Your task to perform on an android device: install app "Facebook" Image 0: 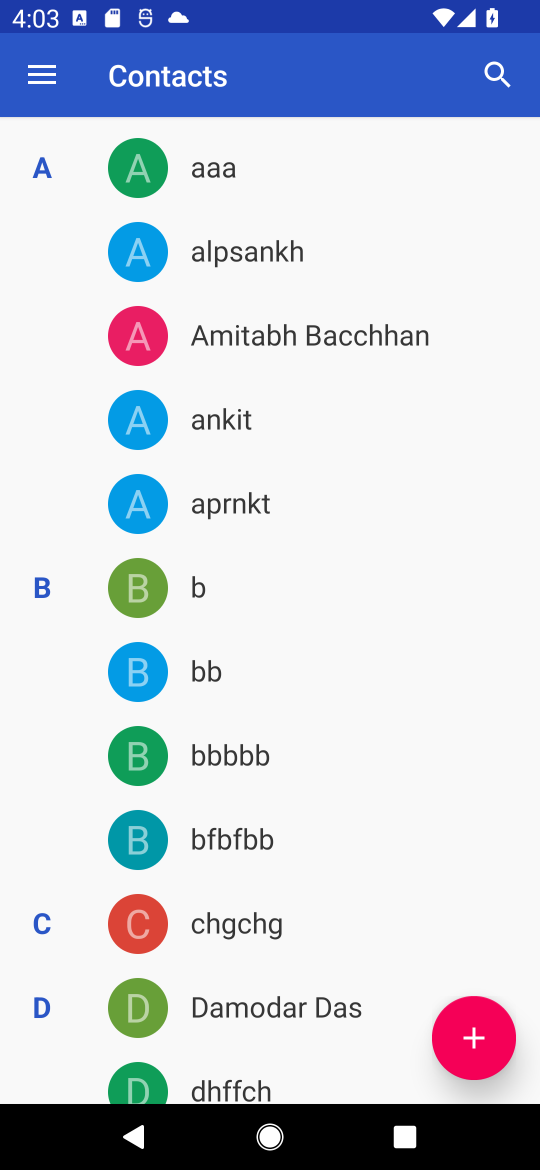
Step 0: press home button
Your task to perform on an android device: install app "Facebook" Image 1: 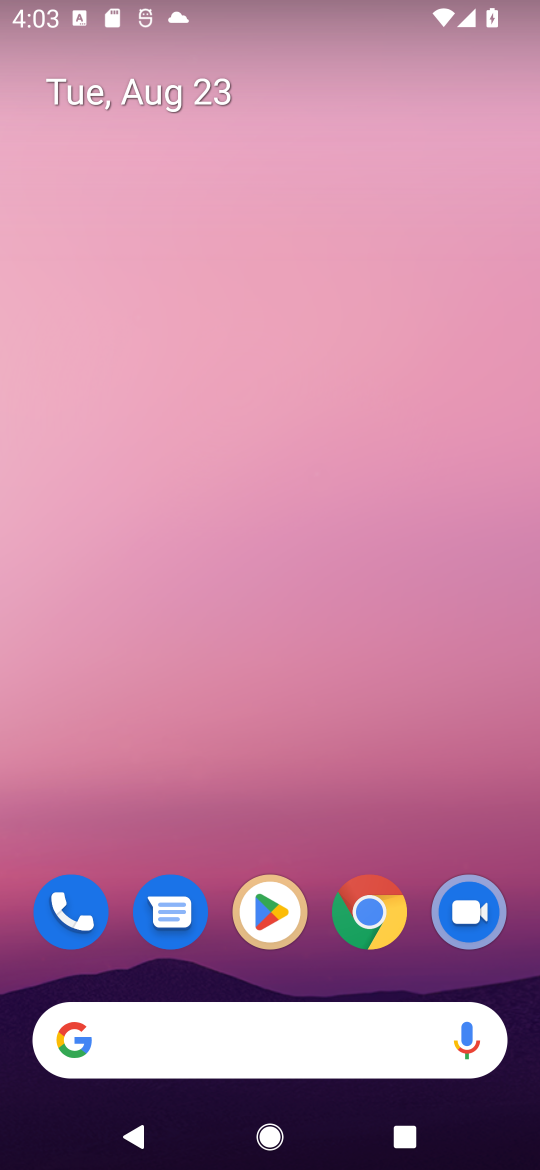
Step 1: drag from (225, 1065) to (365, 30)
Your task to perform on an android device: install app "Facebook" Image 2: 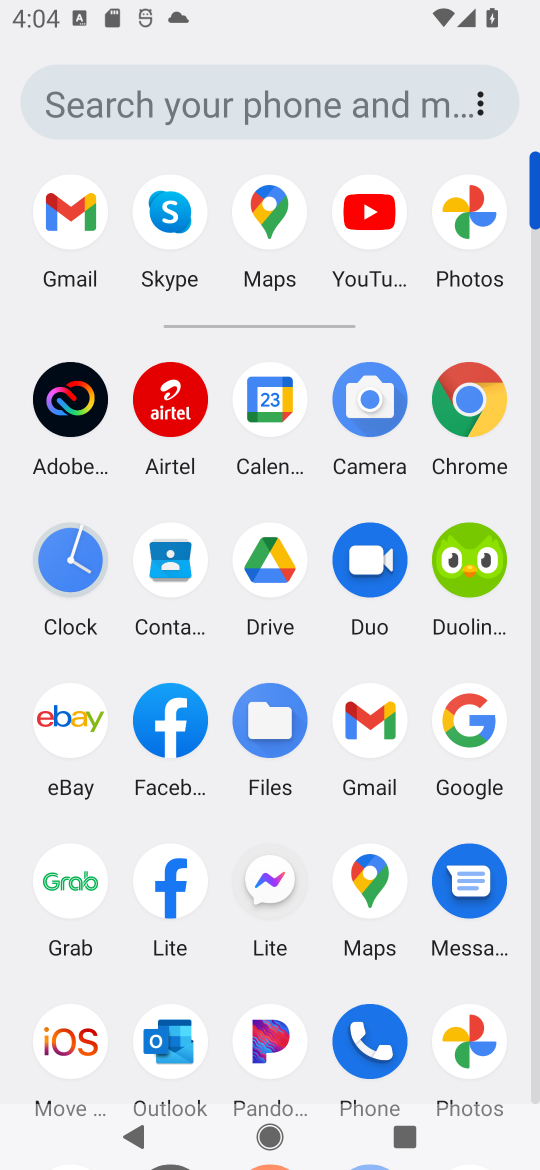
Step 2: drag from (222, 960) to (233, 738)
Your task to perform on an android device: install app "Facebook" Image 3: 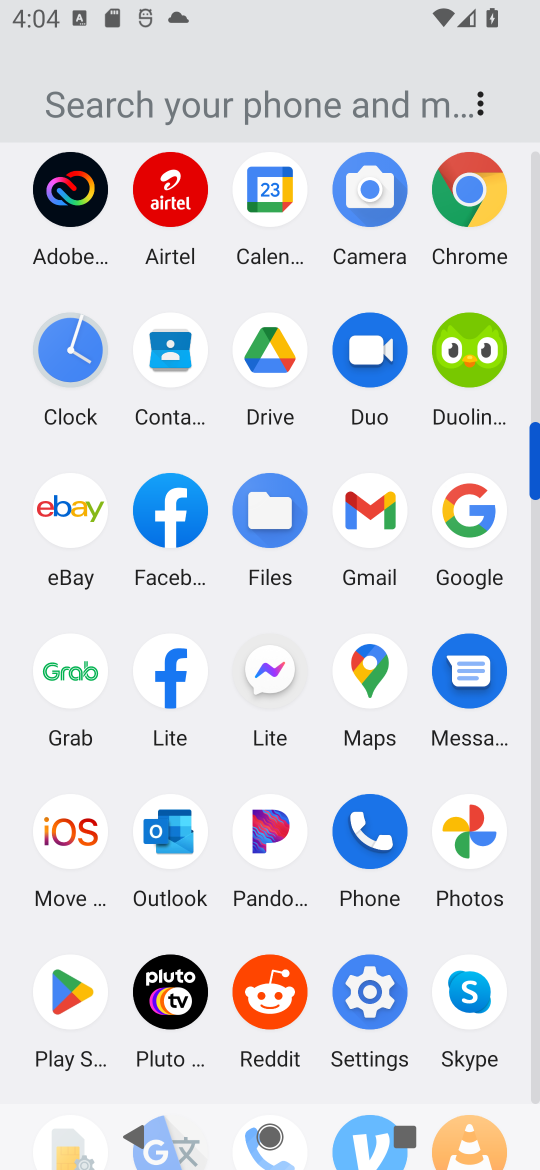
Step 3: click (76, 998)
Your task to perform on an android device: install app "Facebook" Image 4: 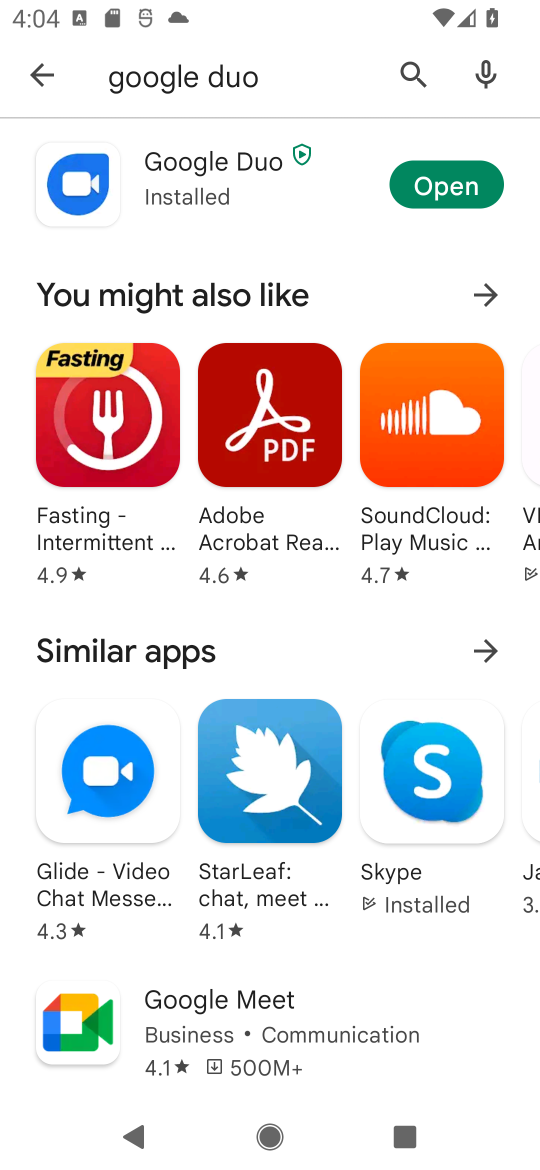
Step 4: press back button
Your task to perform on an android device: install app "Facebook" Image 5: 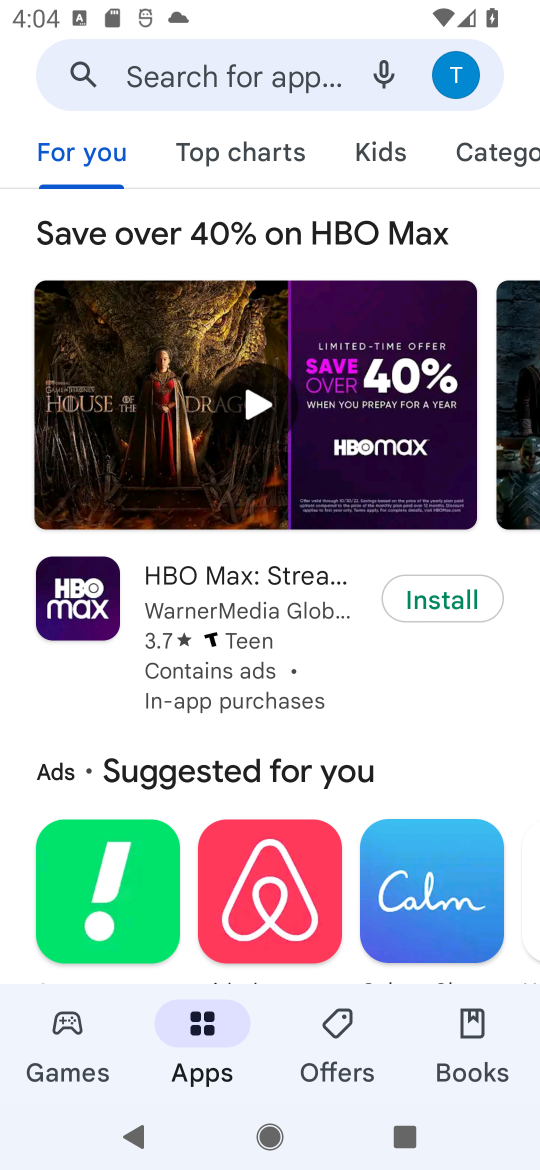
Step 5: click (275, 82)
Your task to perform on an android device: install app "Facebook" Image 6: 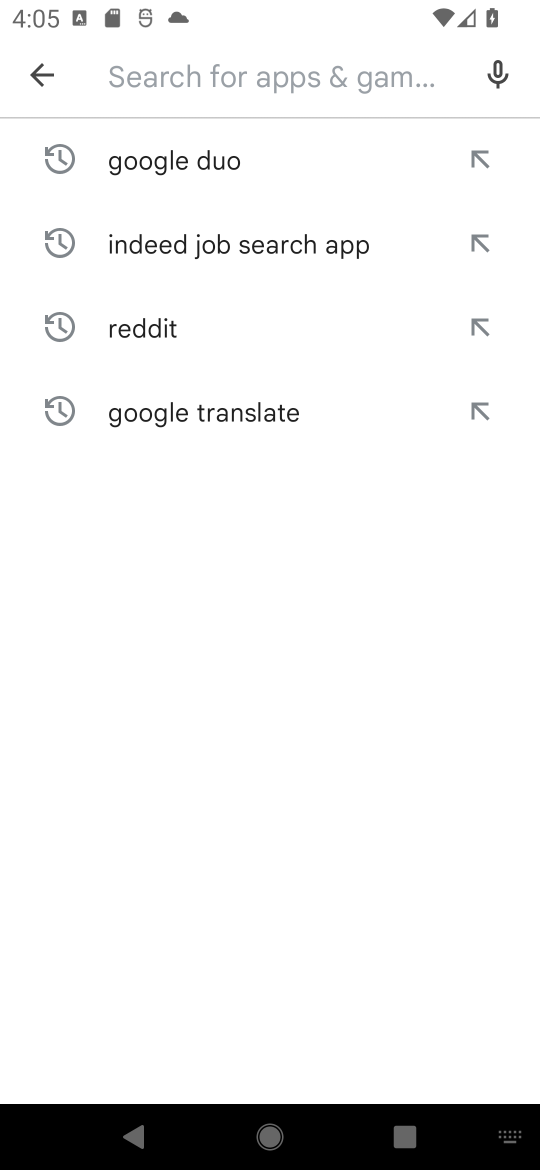
Step 6: type "Facebook"
Your task to perform on an android device: install app "Facebook" Image 7: 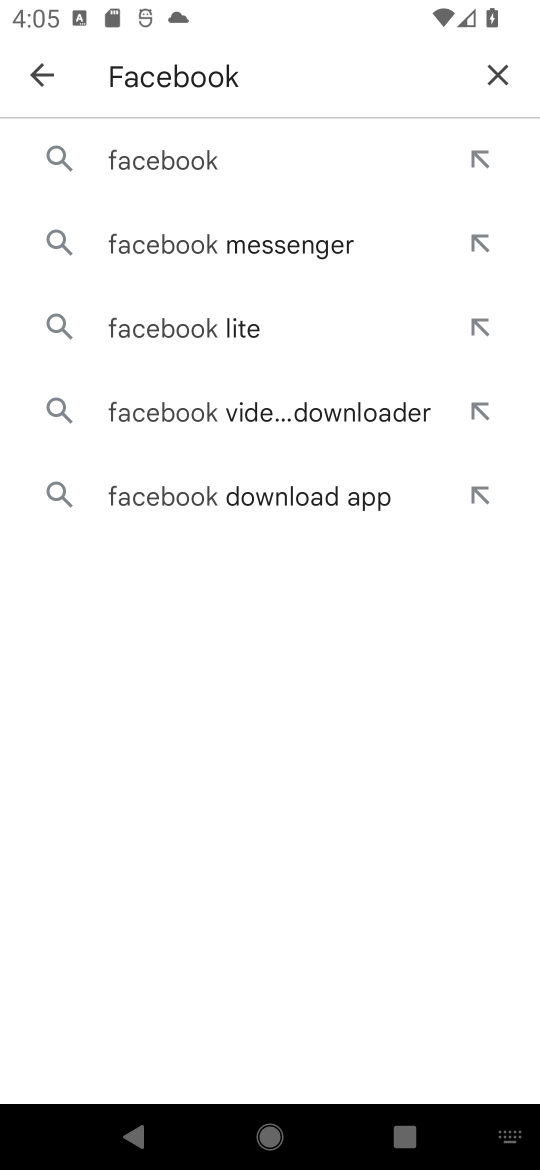
Step 7: click (201, 172)
Your task to perform on an android device: install app "Facebook" Image 8: 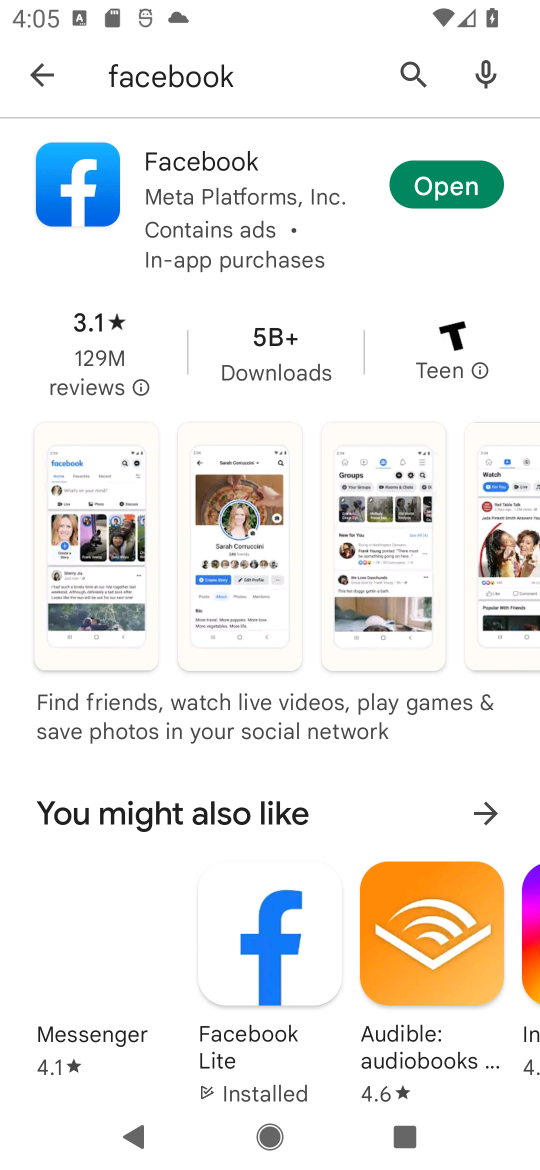
Step 8: task complete